Your task to perform on an android device: Open settings on Google Maps Image 0: 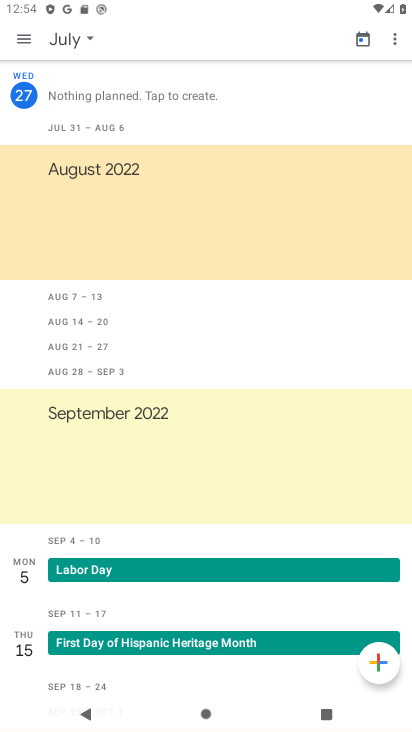
Step 0: press home button
Your task to perform on an android device: Open settings on Google Maps Image 1: 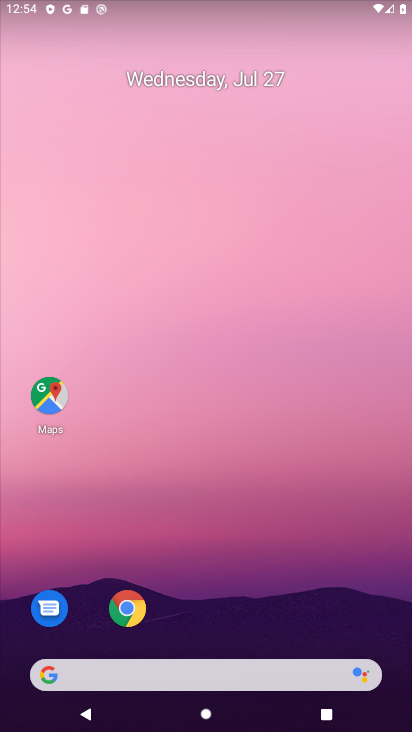
Step 1: click (49, 397)
Your task to perform on an android device: Open settings on Google Maps Image 2: 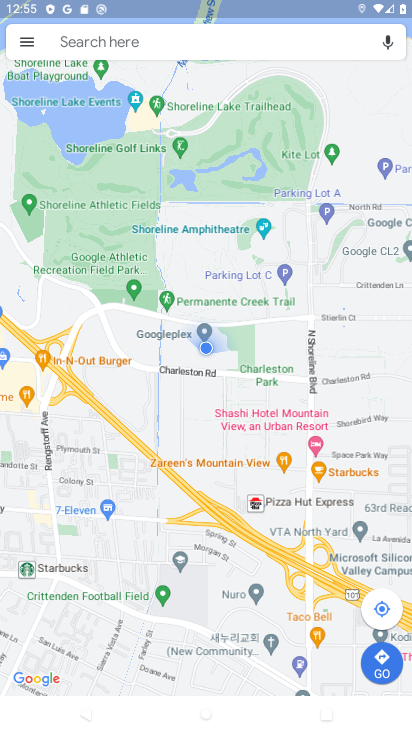
Step 2: click (28, 38)
Your task to perform on an android device: Open settings on Google Maps Image 3: 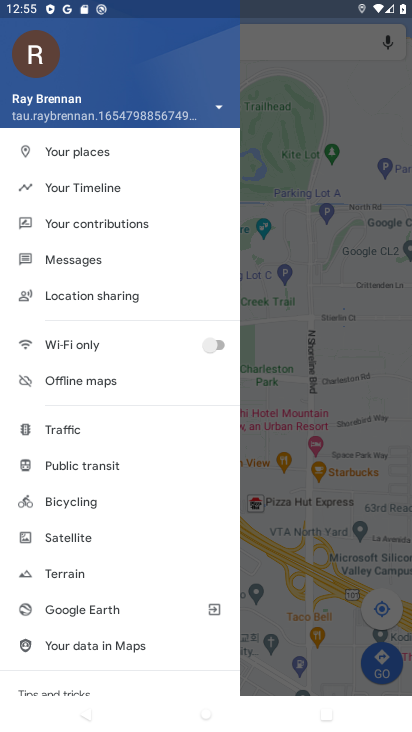
Step 3: drag from (61, 620) to (156, 281)
Your task to perform on an android device: Open settings on Google Maps Image 4: 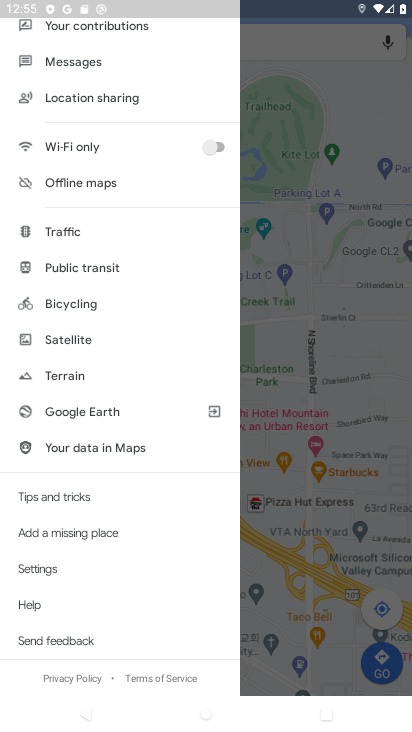
Step 4: click (41, 571)
Your task to perform on an android device: Open settings on Google Maps Image 5: 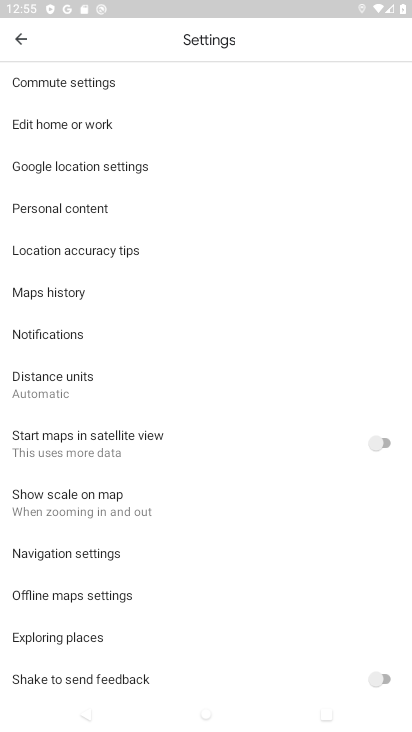
Step 5: task complete